Your task to perform on an android device: uninstall "Pluto TV - Live TV and Movies" Image 0: 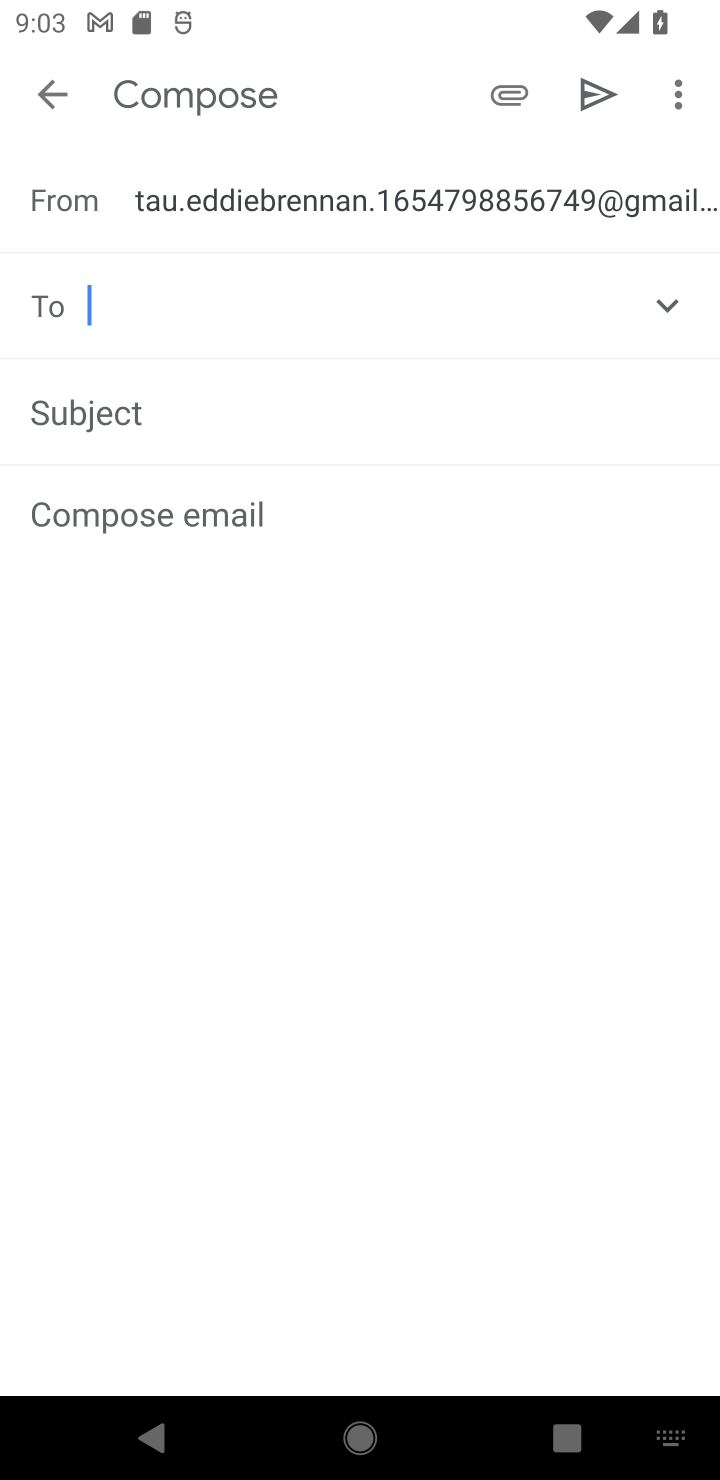
Step 0: press home button
Your task to perform on an android device: uninstall "Pluto TV - Live TV and Movies" Image 1: 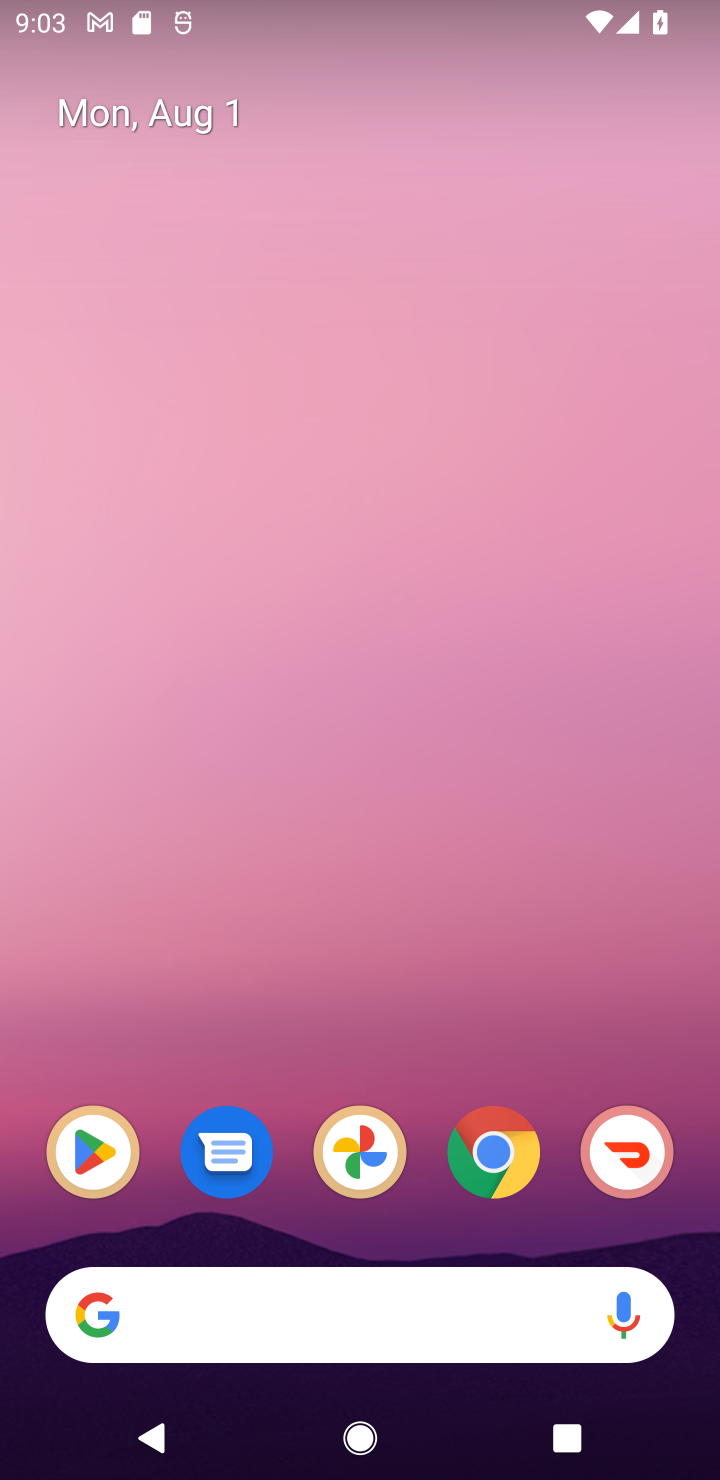
Step 1: drag from (422, 1280) to (304, 281)
Your task to perform on an android device: uninstall "Pluto TV - Live TV and Movies" Image 2: 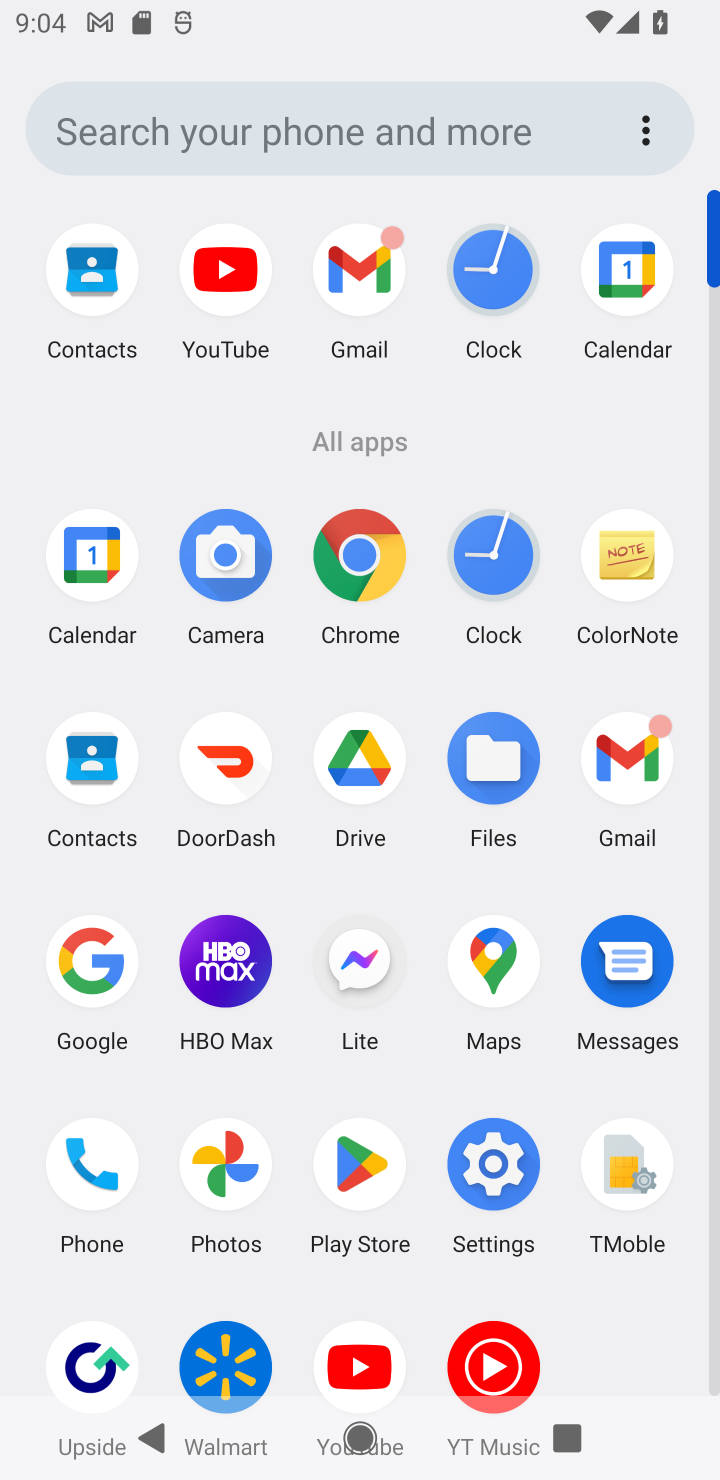
Step 2: click (414, 1199)
Your task to perform on an android device: uninstall "Pluto TV - Live TV and Movies" Image 3: 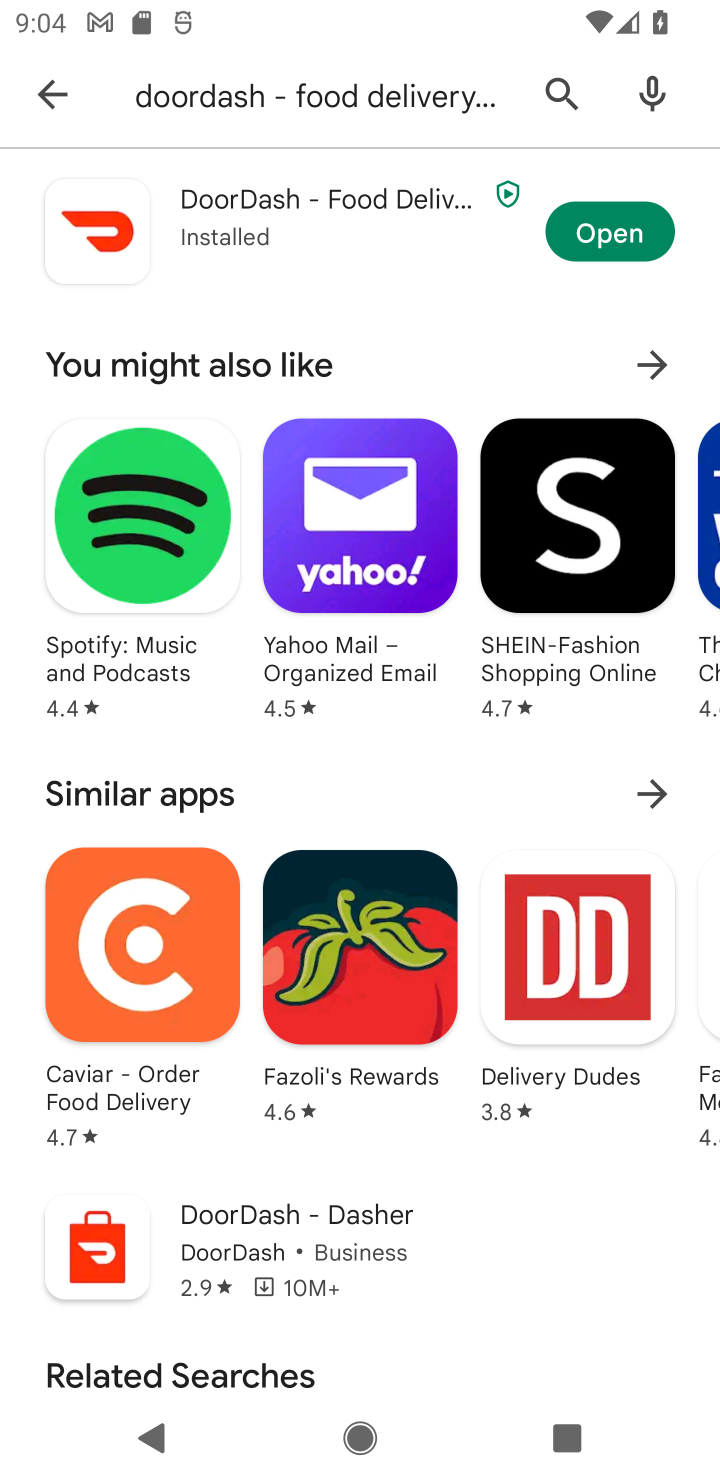
Step 3: click (62, 77)
Your task to perform on an android device: uninstall "Pluto TV - Live TV and Movies" Image 4: 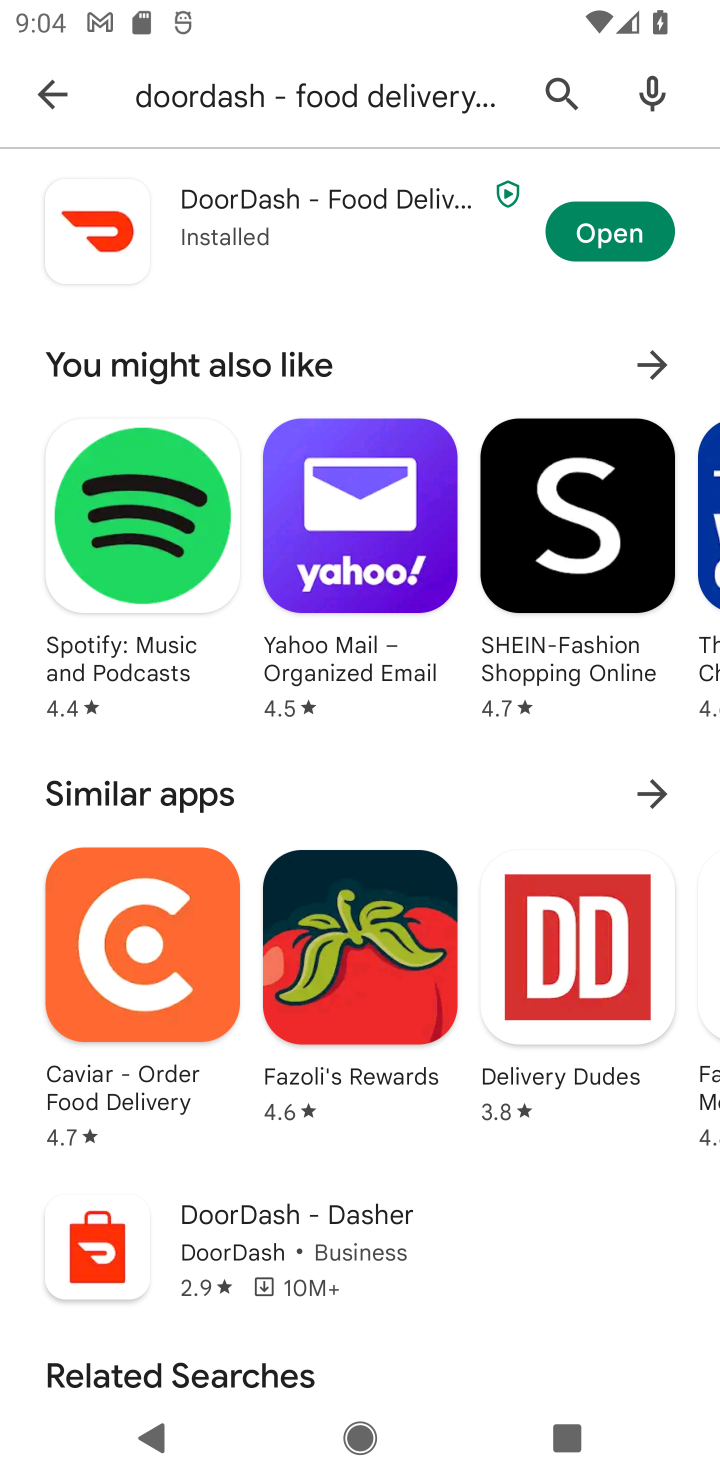
Step 4: click (42, 95)
Your task to perform on an android device: uninstall "Pluto TV - Live TV and Movies" Image 5: 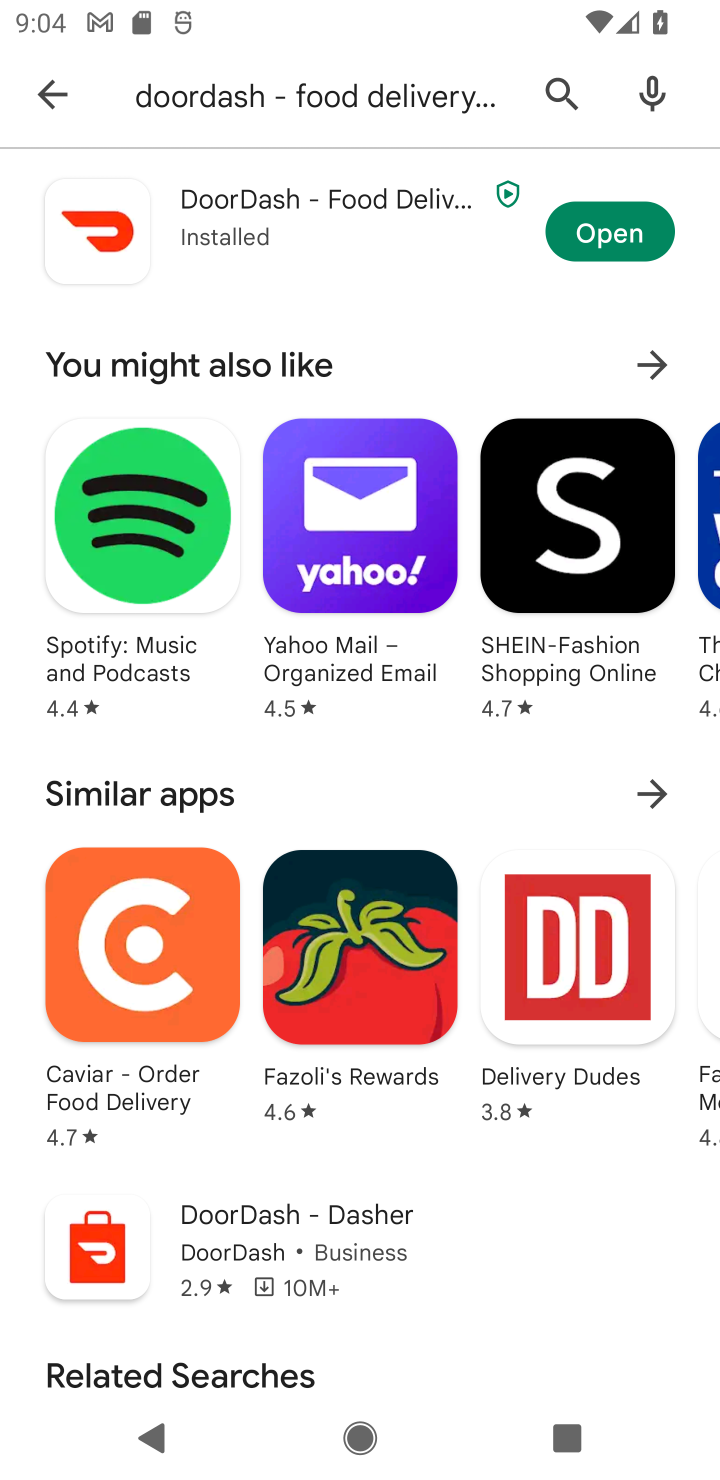
Step 5: click (56, 95)
Your task to perform on an android device: uninstall "Pluto TV - Live TV and Movies" Image 6: 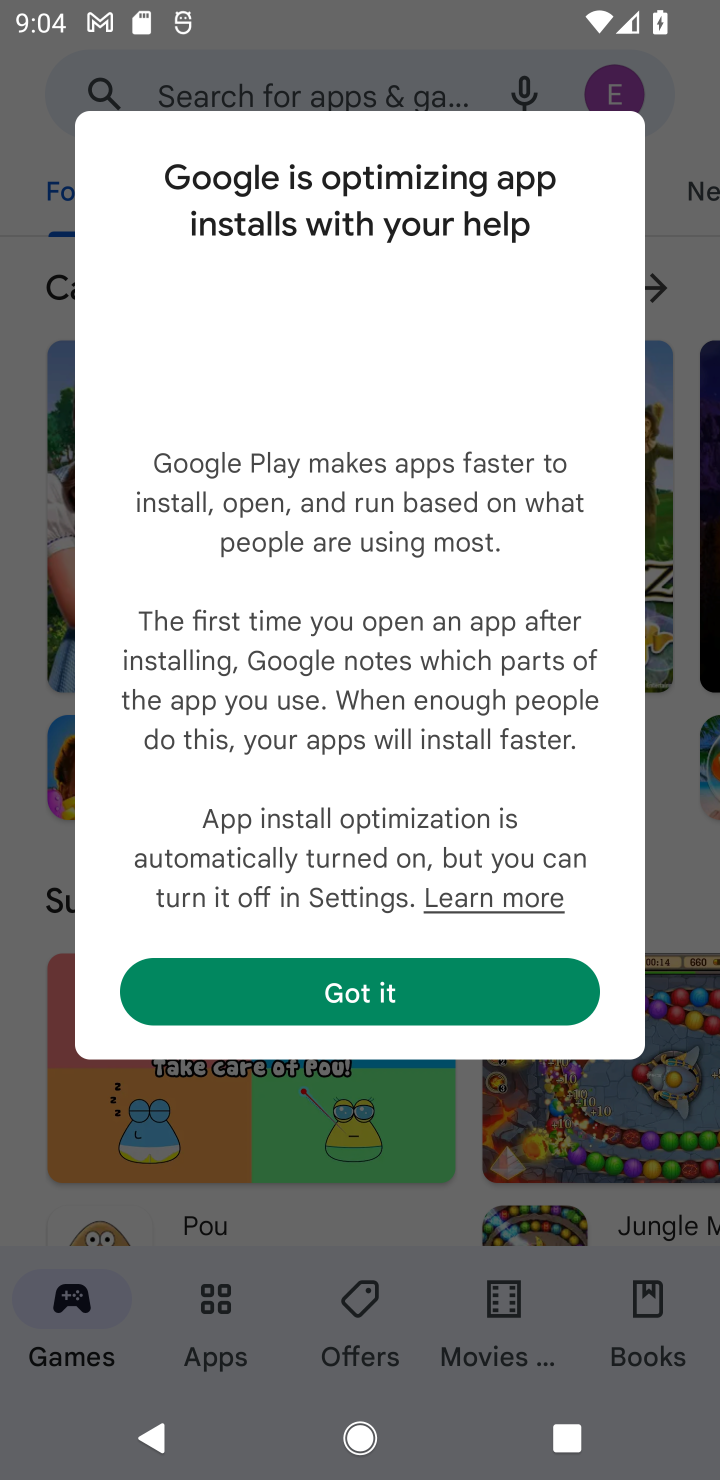
Step 6: click (226, 84)
Your task to perform on an android device: uninstall "Pluto TV - Live TV and Movies" Image 7: 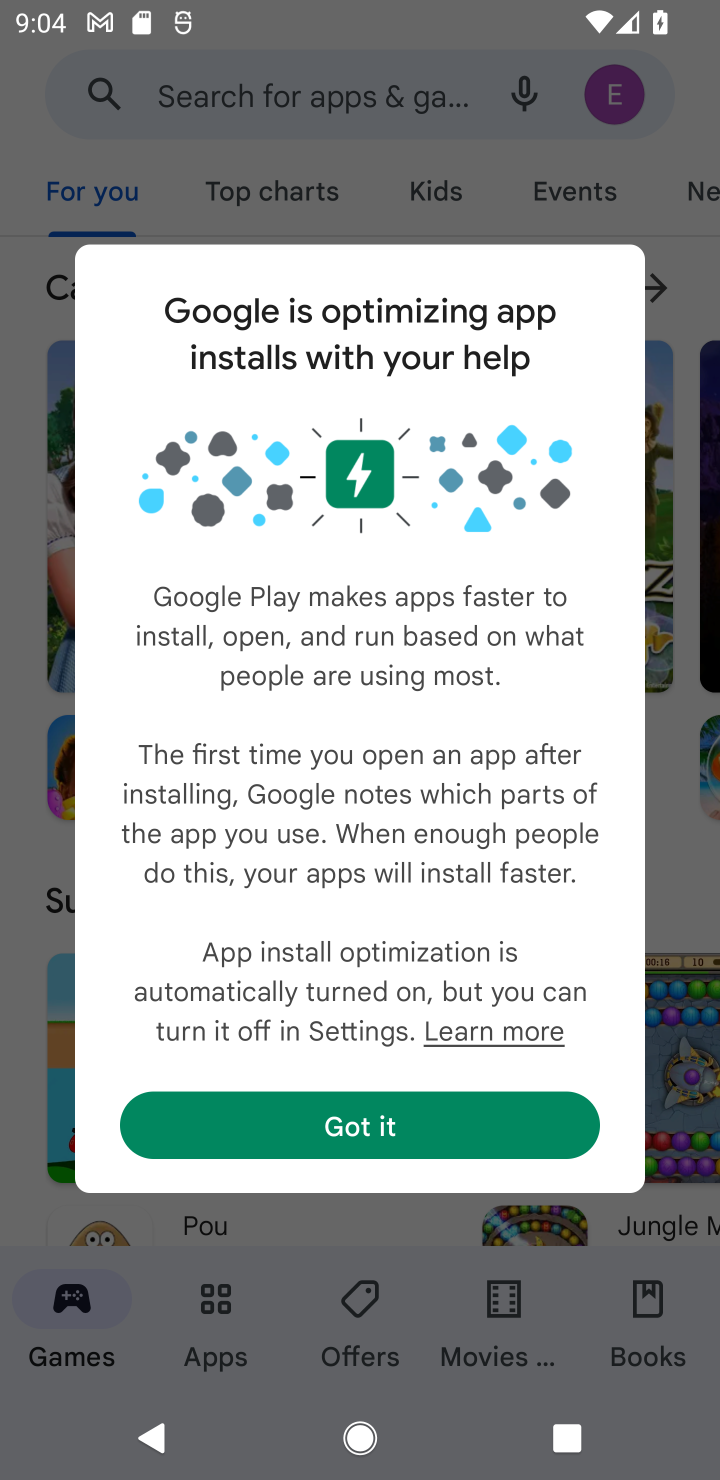
Step 7: click (359, 1099)
Your task to perform on an android device: uninstall "Pluto TV - Live TV and Movies" Image 8: 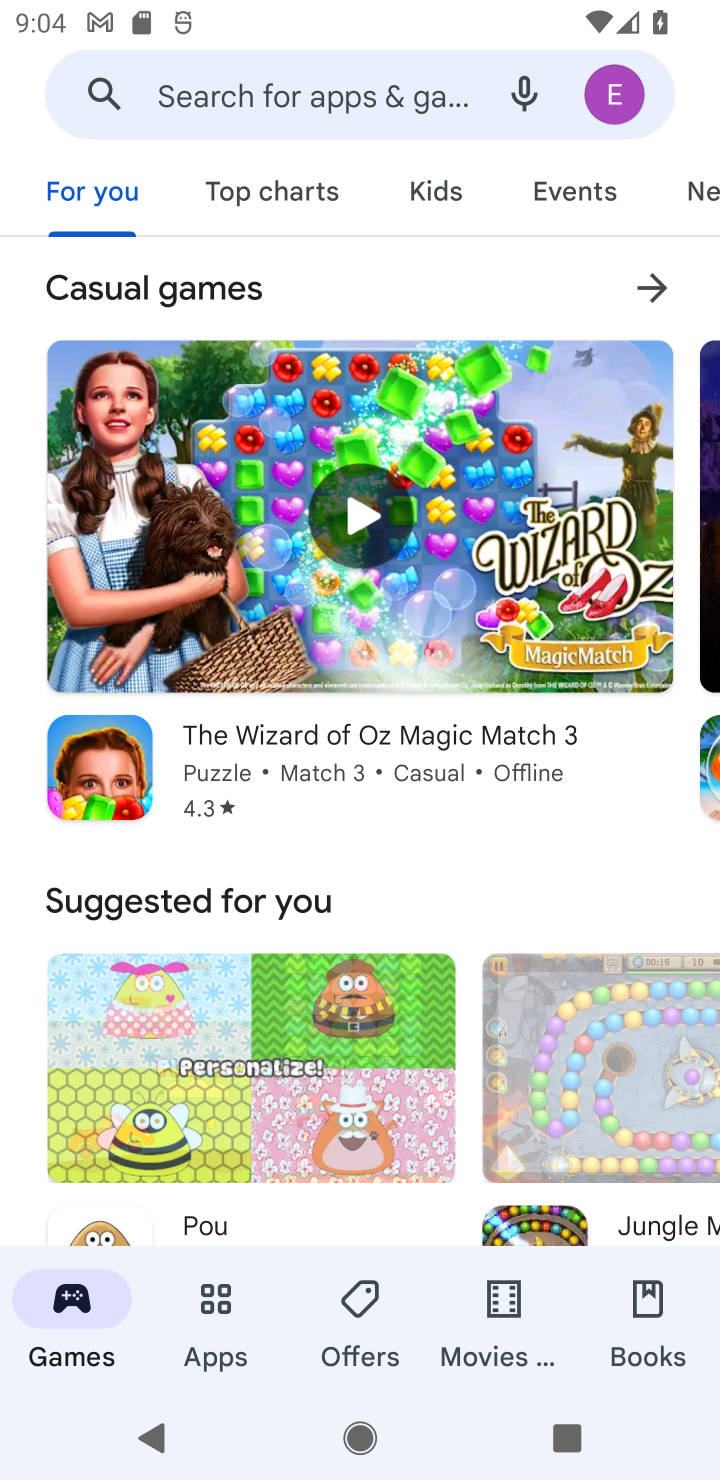
Step 8: click (197, 115)
Your task to perform on an android device: uninstall "Pluto TV - Live TV and Movies" Image 9: 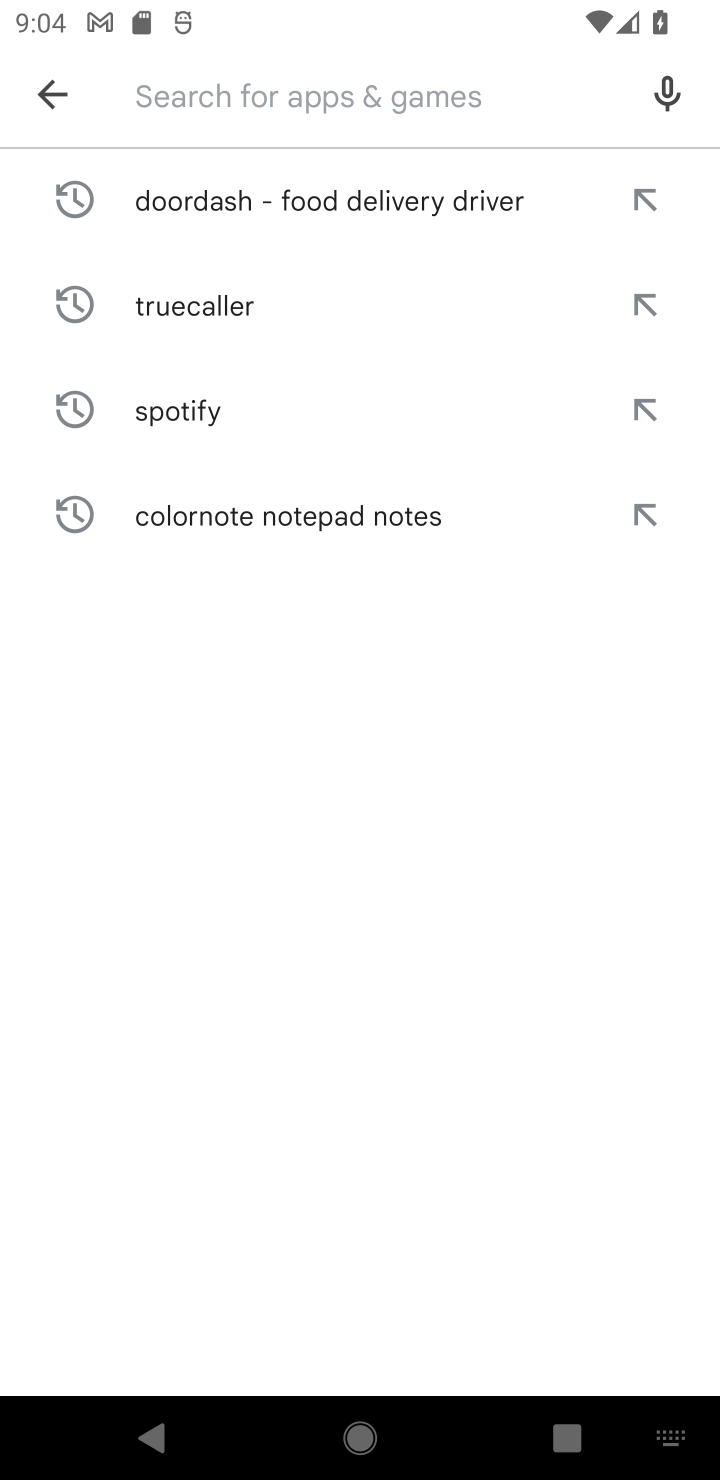
Step 9: type "Pluto TV - Live TV and Movies"
Your task to perform on an android device: uninstall "Pluto TV - Live TV and Movies" Image 10: 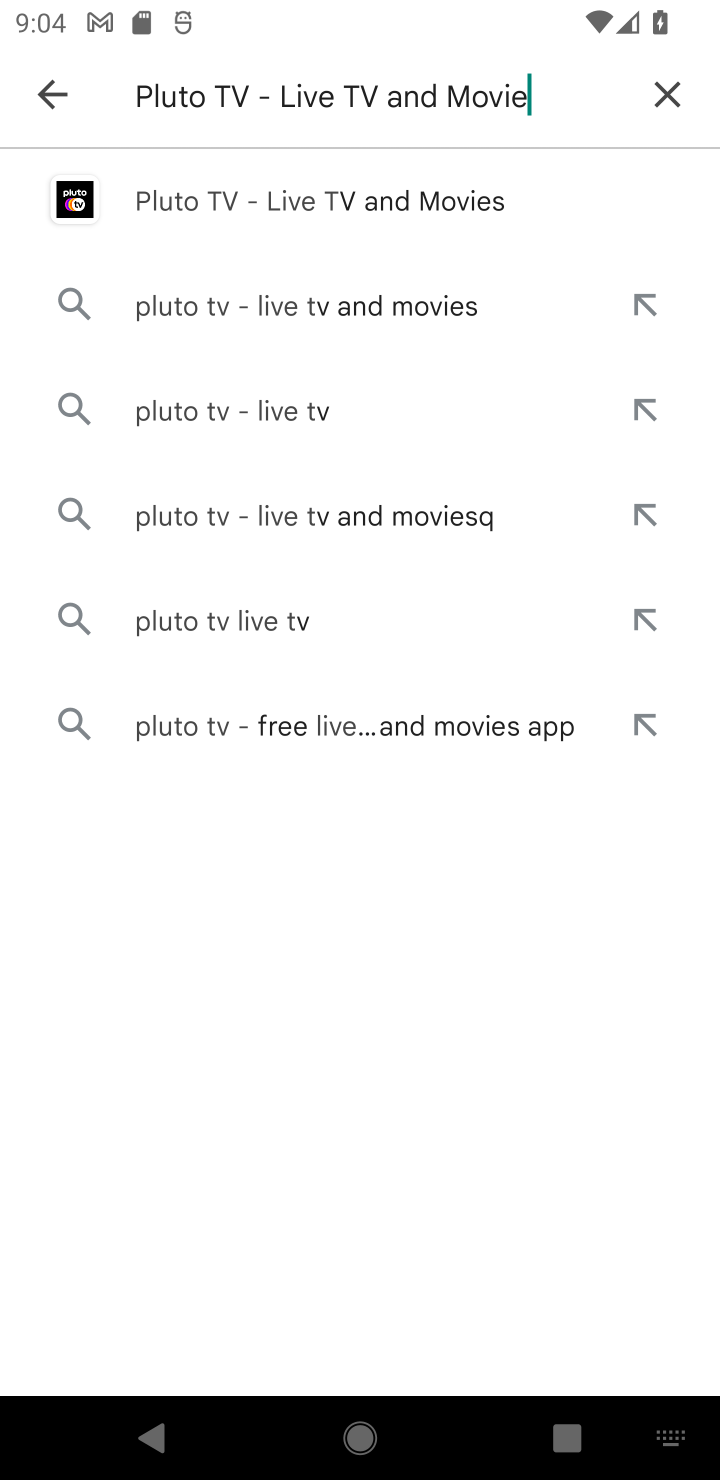
Step 10: type ""
Your task to perform on an android device: uninstall "Pluto TV - Live TV and Movies" Image 11: 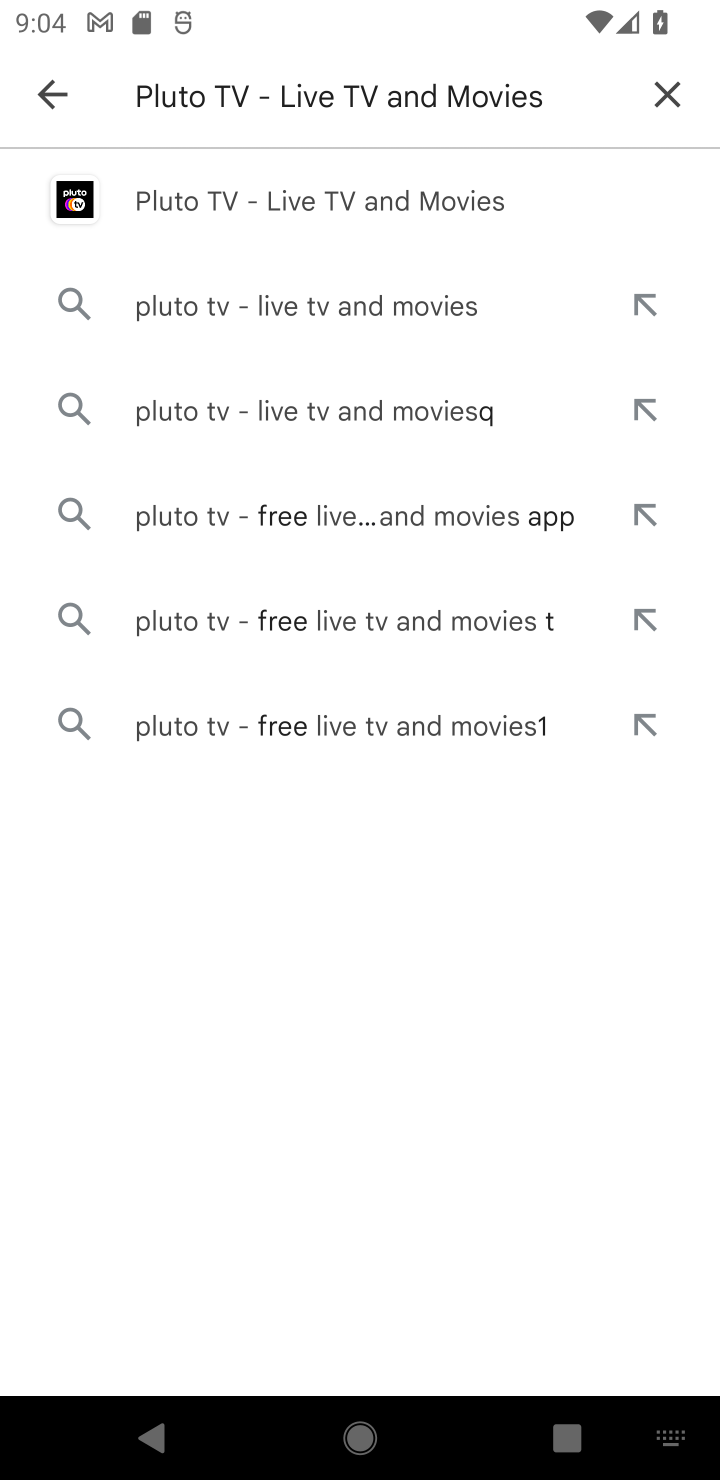
Step 11: click (167, 188)
Your task to perform on an android device: uninstall "Pluto TV - Live TV and Movies" Image 12: 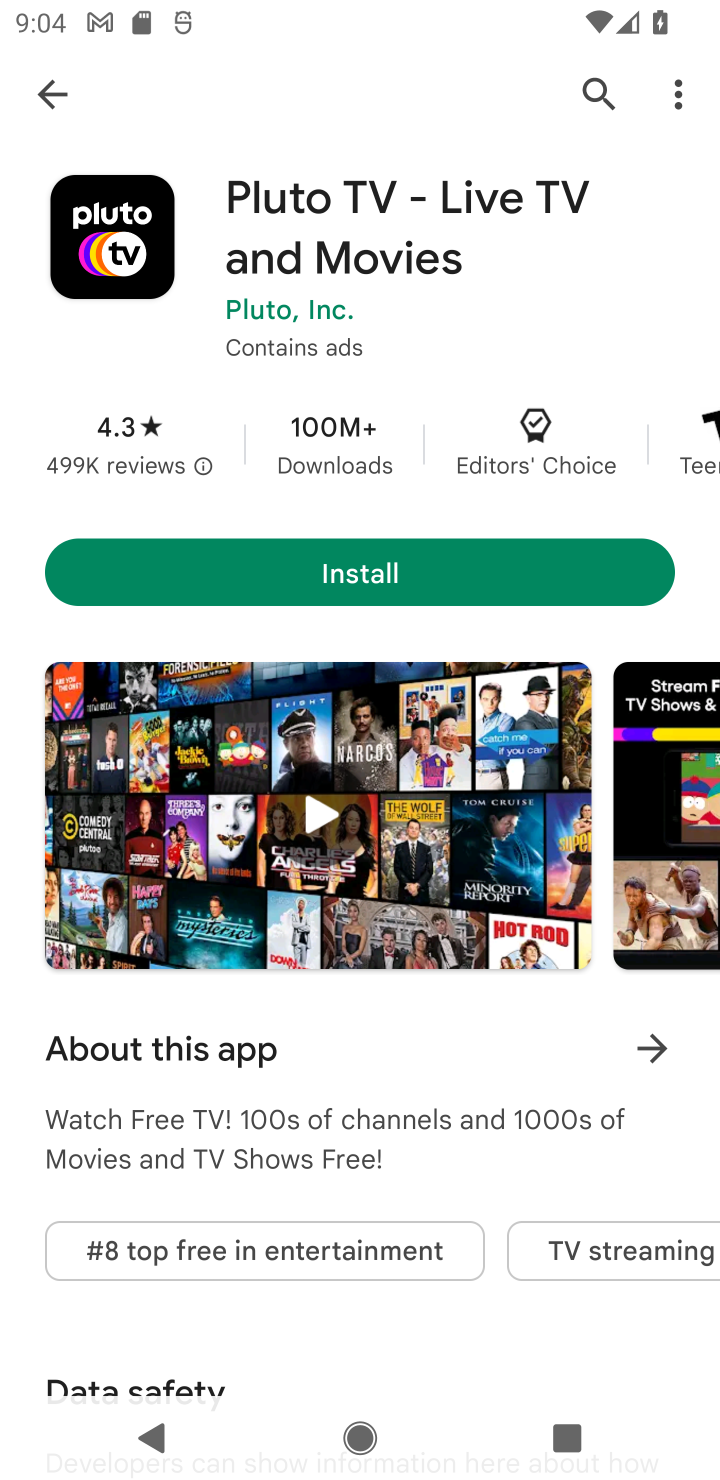
Step 12: task complete